Your task to perform on an android device: What's on my calendar tomorrow? Image 0: 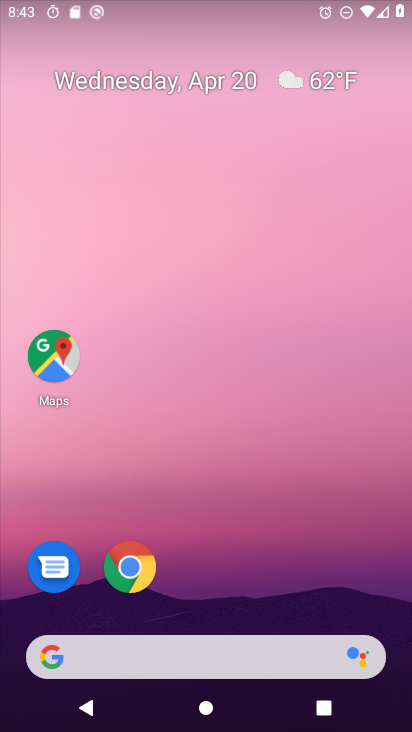
Step 0: drag from (364, 593) to (377, 30)
Your task to perform on an android device: What's on my calendar tomorrow? Image 1: 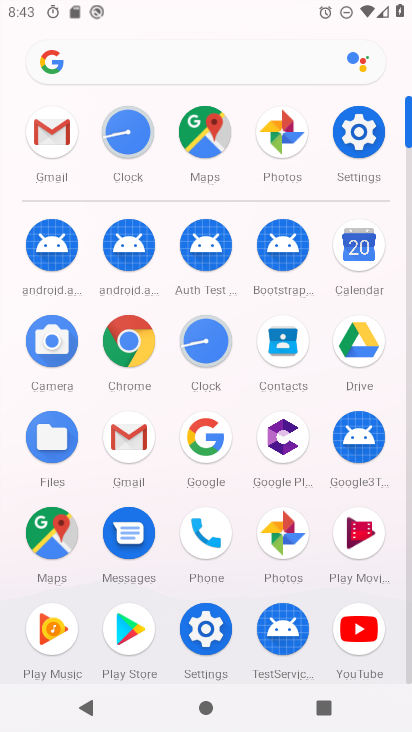
Step 1: click (358, 249)
Your task to perform on an android device: What's on my calendar tomorrow? Image 2: 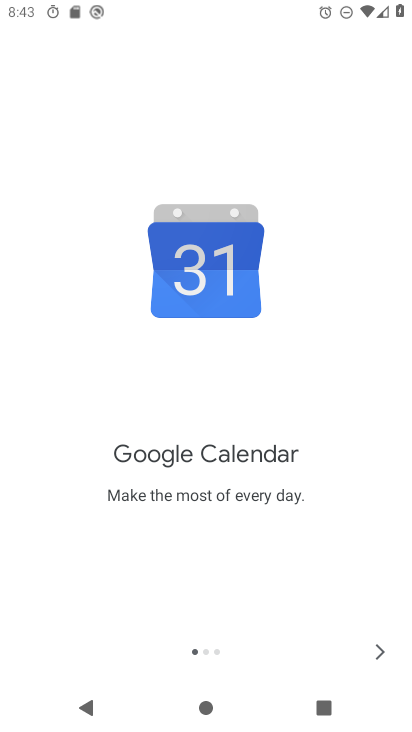
Step 2: click (370, 653)
Your task to perform on an android device: What's on my calendar tomorrow? Image 3: 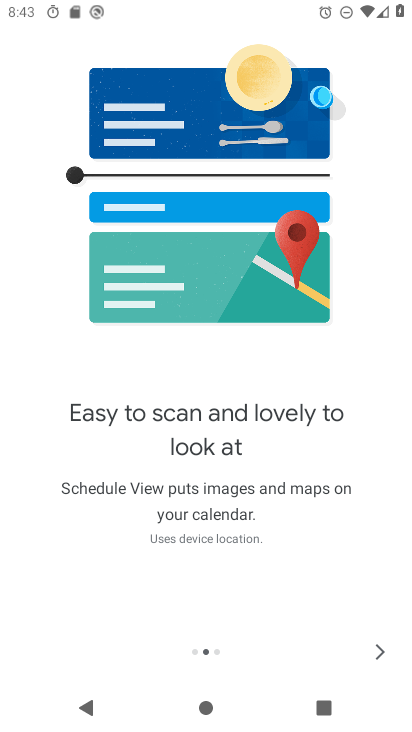
Step 3: click (370, 654)
Your task to perform on an android device: What's on my calendar tomorrow? Image 4: 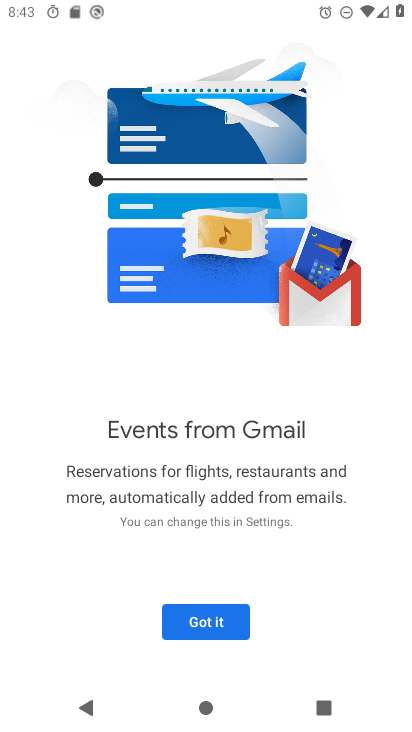
Step 4: click (210, 619)
Your task to perform on an android device: What's on my calendar tomorrow? Image 5: 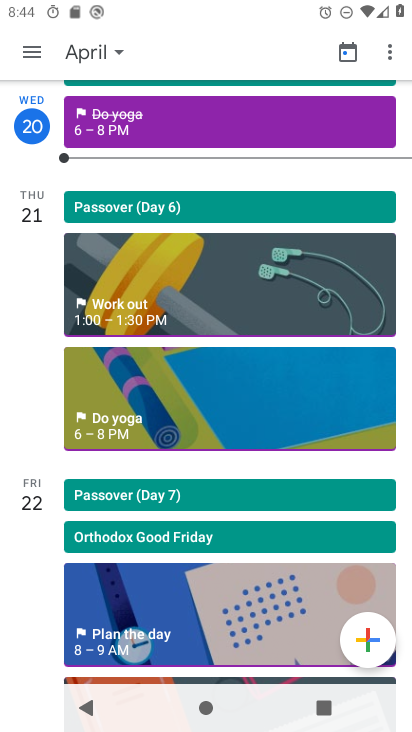
Step 5: click (118, 54)
Your task to perform on an android device: What's on my calendar tomorrow? Image 6: 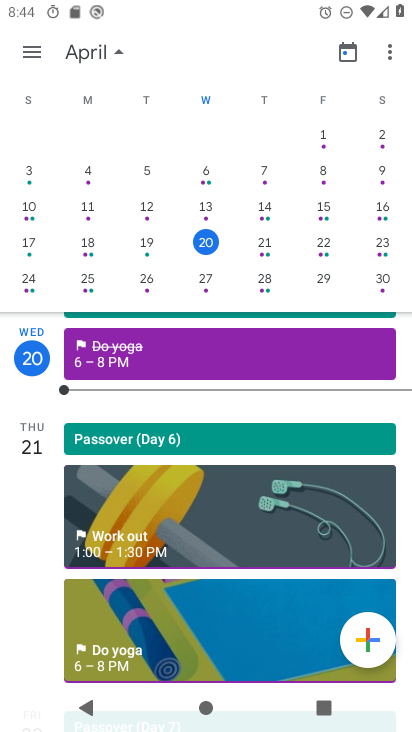
Step 6: click (261, 245)
Your task to perform on an android device: What's on my calendar tomorrow? Image 7: 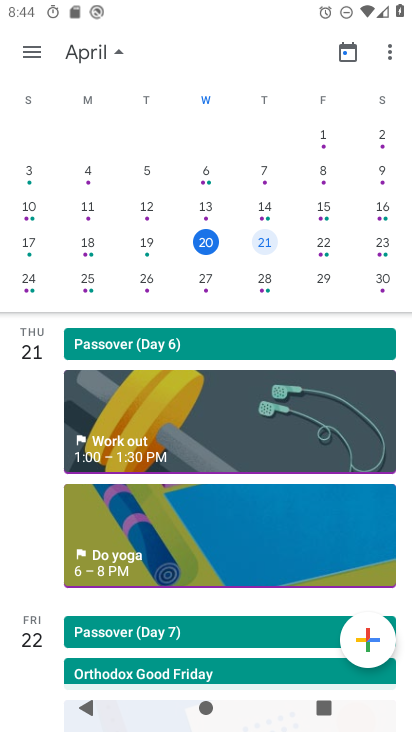
Step 7: drag from (149, 523) to (156, 407)
Your task to perform on an android device: What's on my calendar tomorrow? Image 8: 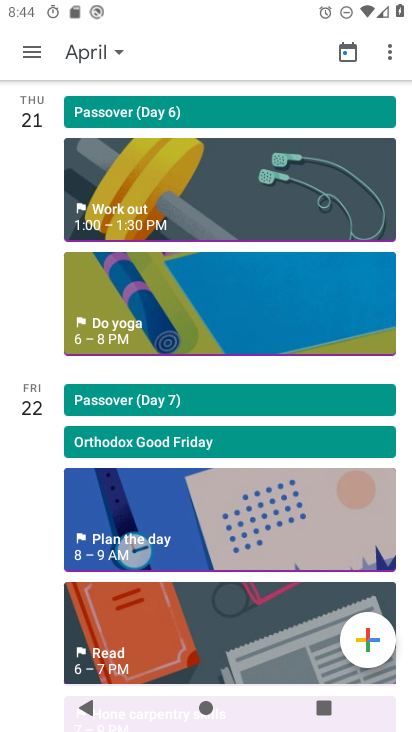
Step 8: click (162, 296)
Your task to perform on an android device: What's on my calendar tomorrow? Image 9: 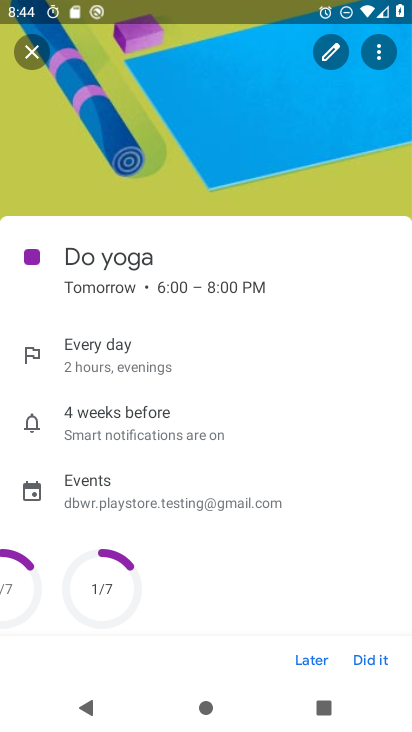
Step 9: task complete